Your task to perform on an android device: all mails in gmail Image 0: 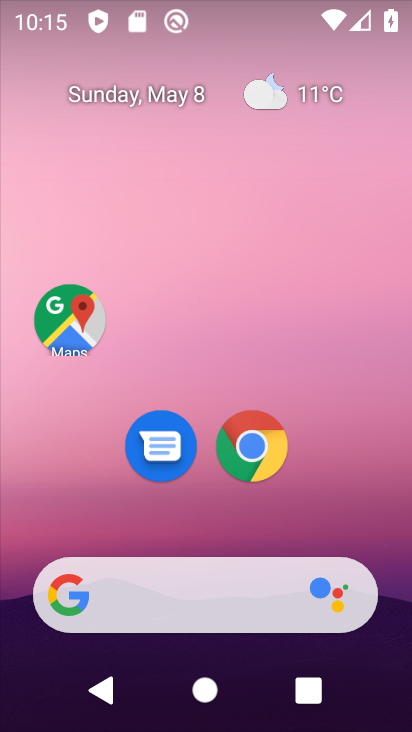
Step 0: drag from (357, 540) to (343, 4)
Your task to perform on an android device: all mails in gmail Image 1: 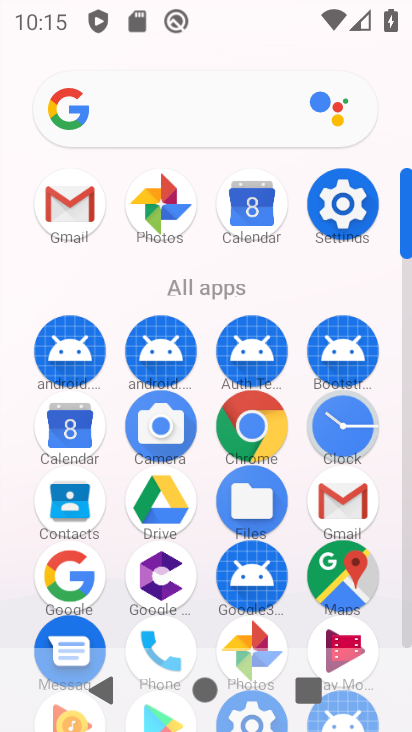
Step 1: click (70, 217)
Your task to perform on an android device: all mails in gmail Image 2: 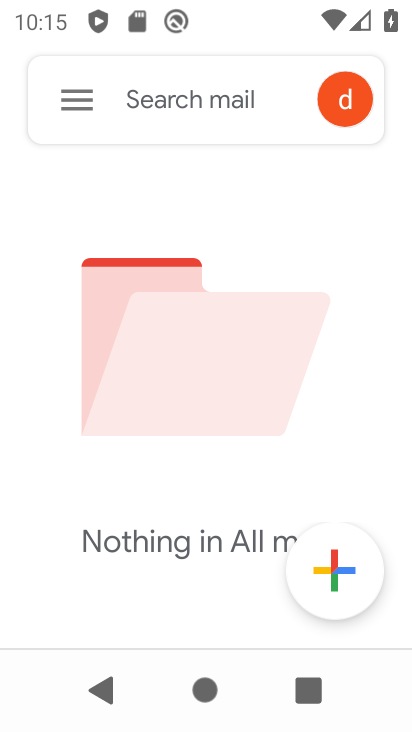
Step 2: task complete